Your task to perform on an android device: set the stopwatch Image 0: 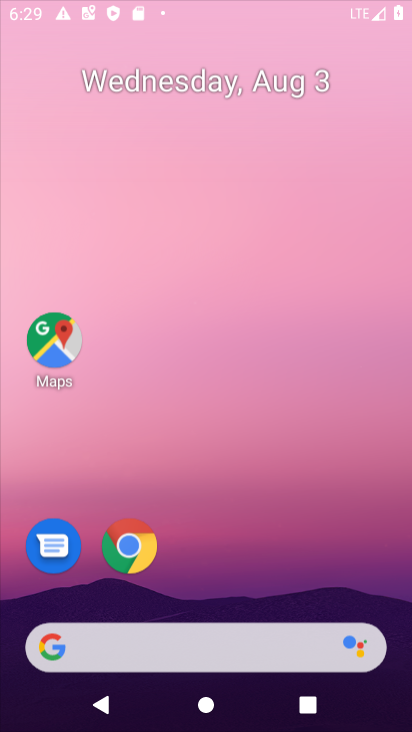
Step 0: press home button
Your task to perform on an android device: set the stopwatch Image 1: 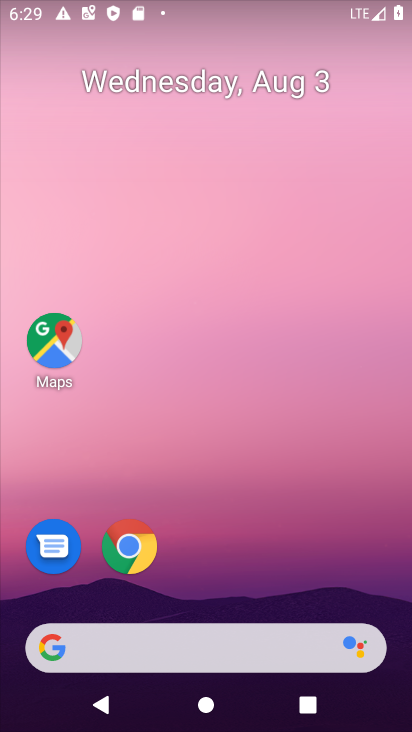
Step 1: drag from (284, 564) to (375, 4)
Your task to perform on an android device: set the stopwatch Image 2: 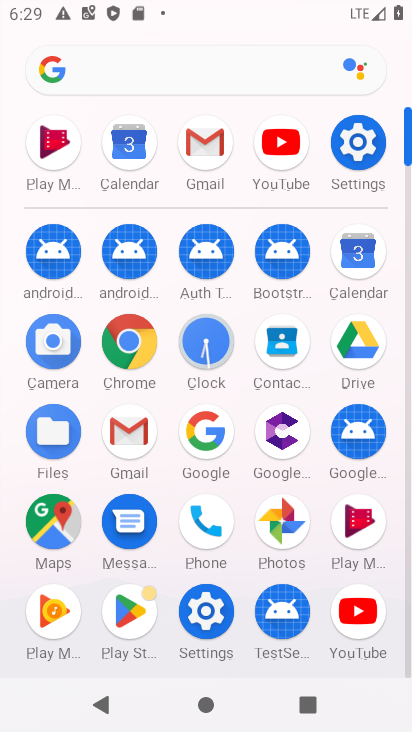
Step 2: click (215, 324)
Your task to perform on an android device: set the stopwatch Image 3: 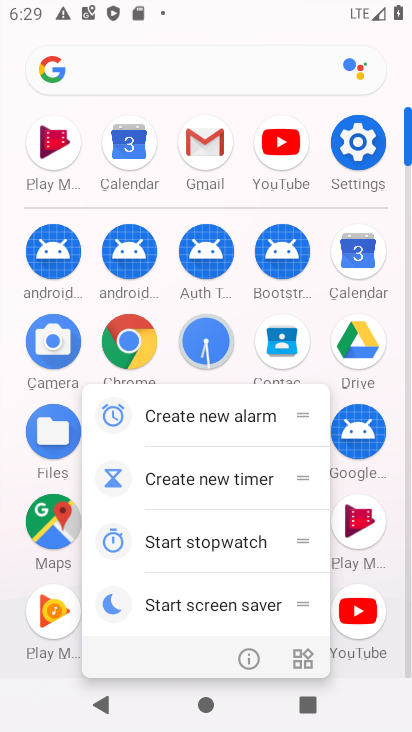
Step 3: click (216, 345)
Your task to perform on an android device: set the stopwatch Image 4: 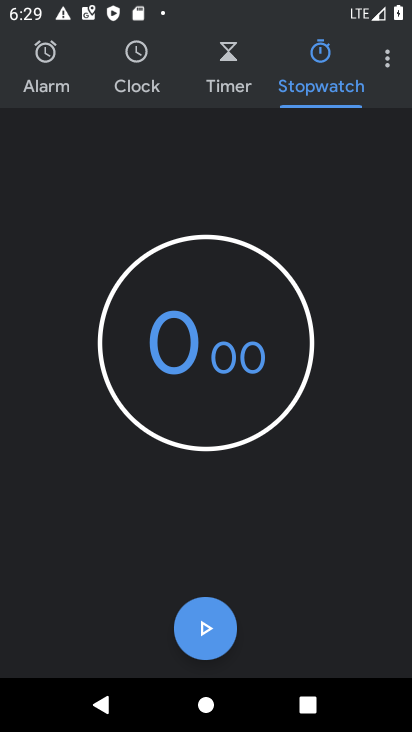
Step 4: click (206, 627)
Your task to perform on an android device: set the stopwatch Image 5: 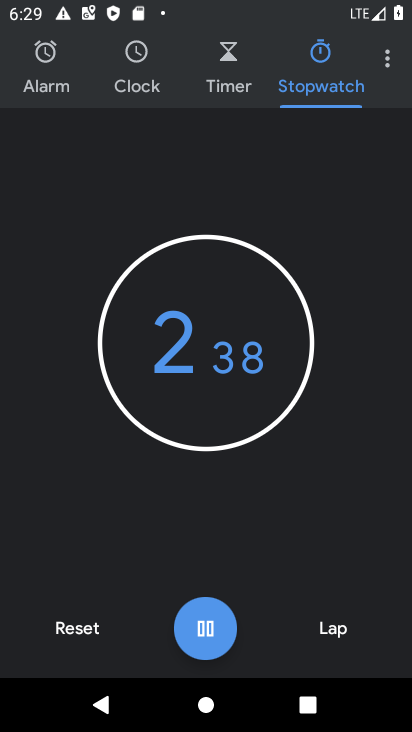
Step 5: task complete